Your task to perform on an android device: Open Android settings Image 0: 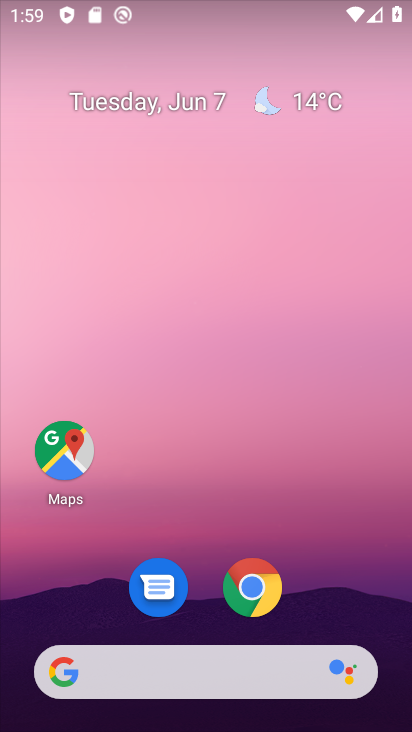
Step 0: drag from (101, 640) to (200, 209)
Your task to perform on an android device: Open Android settings Image 1: 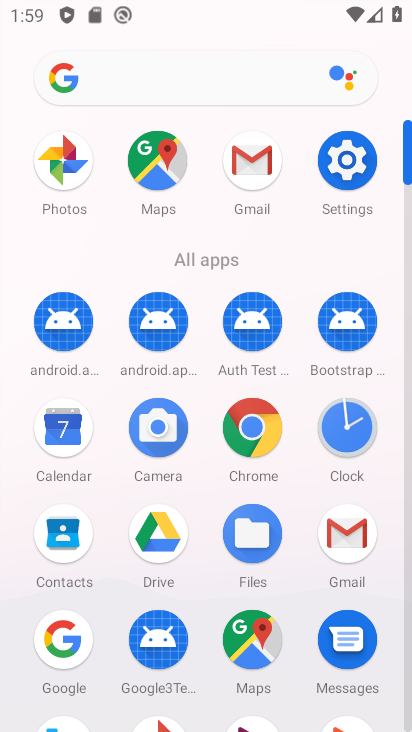
Step 1: drag from (186, 635) to (267, 360)
Your task to perform on an android device: Open Android settings Image 2: 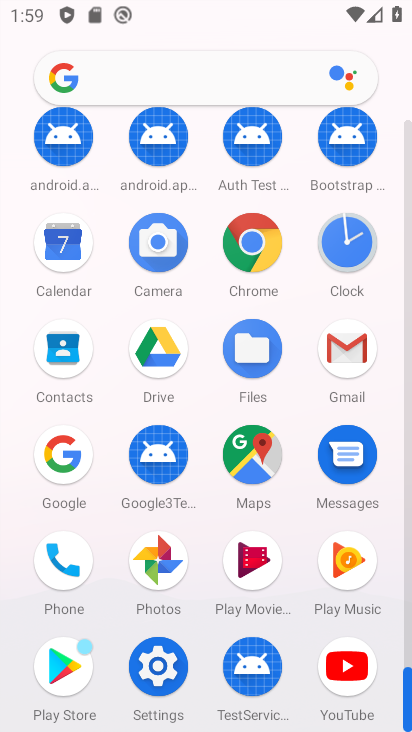
Step 2: click (155, 680)
Your task to perform on an android device: Open Android settings Image 3: 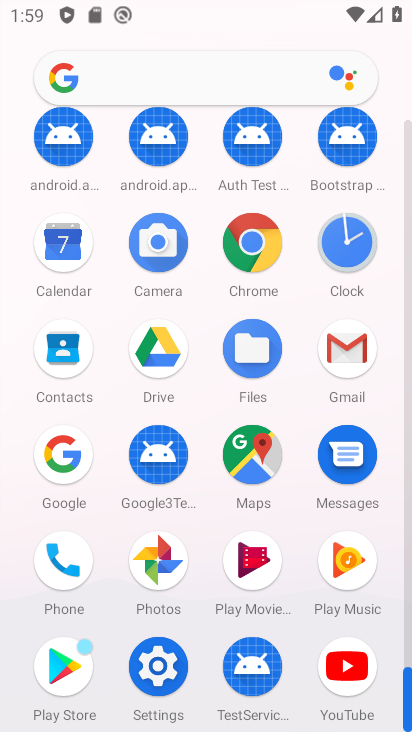
Step 3: click (147, 659)
Your task to perform on an android device: Open Android settings Image 4: 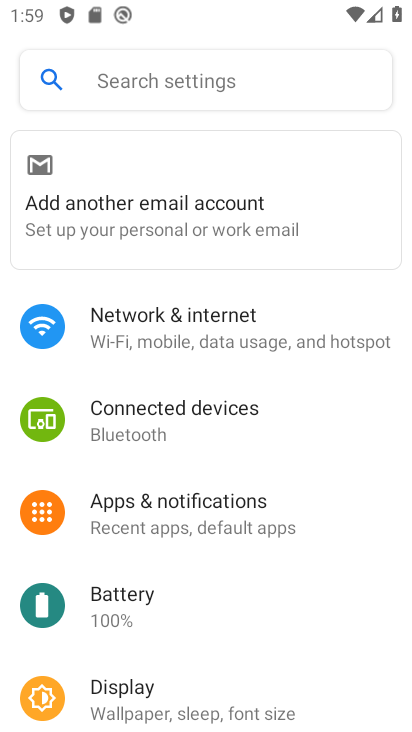
Step 4: task complete